Your task to perform on an android device: What is the capital of Norway? Image 0: 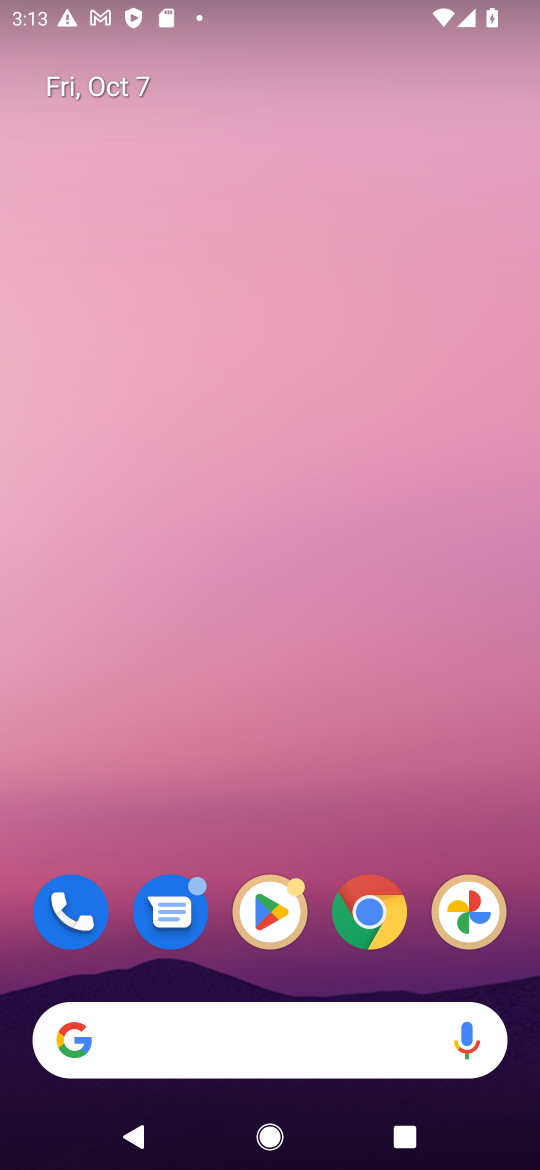
Step 0: drag from (216, 825) to (248, 229)
Your task to perform on an android device: What is the capital of Norway? Image 1: 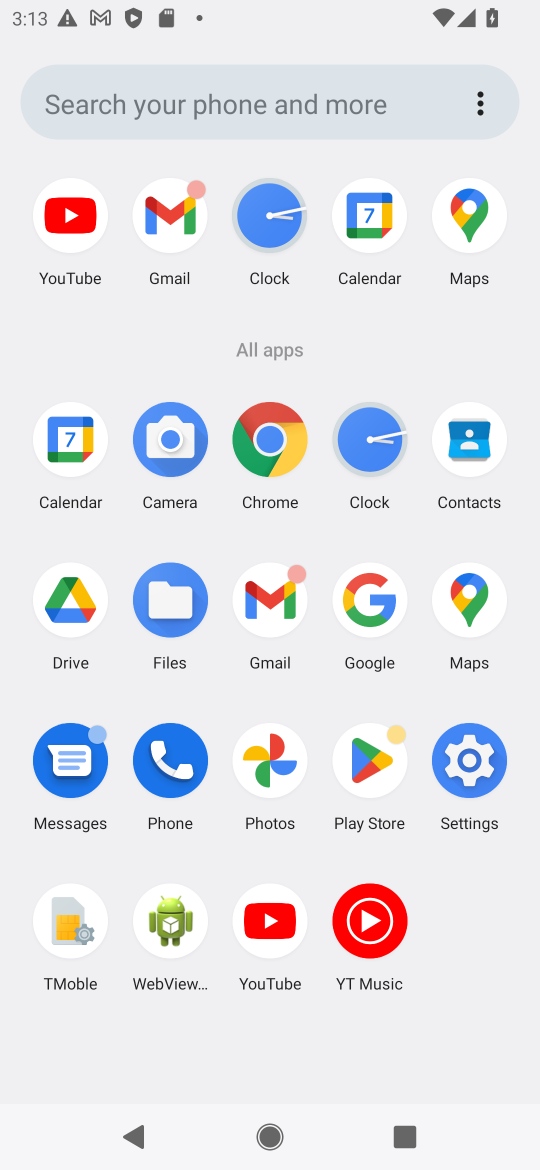
Step 1: click (359, 590)
Your task to perform on an android device: What is the capital of Norway? Image 2: 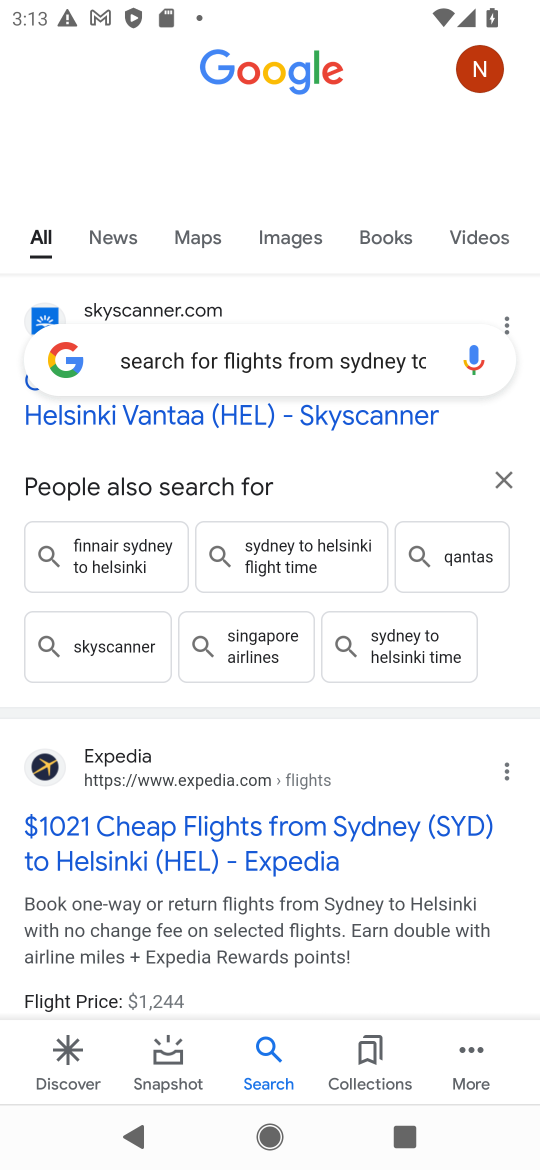
Step 2: click (406, 354)
Your task to perform on an android device: What is the capital of Norway? Image 3: 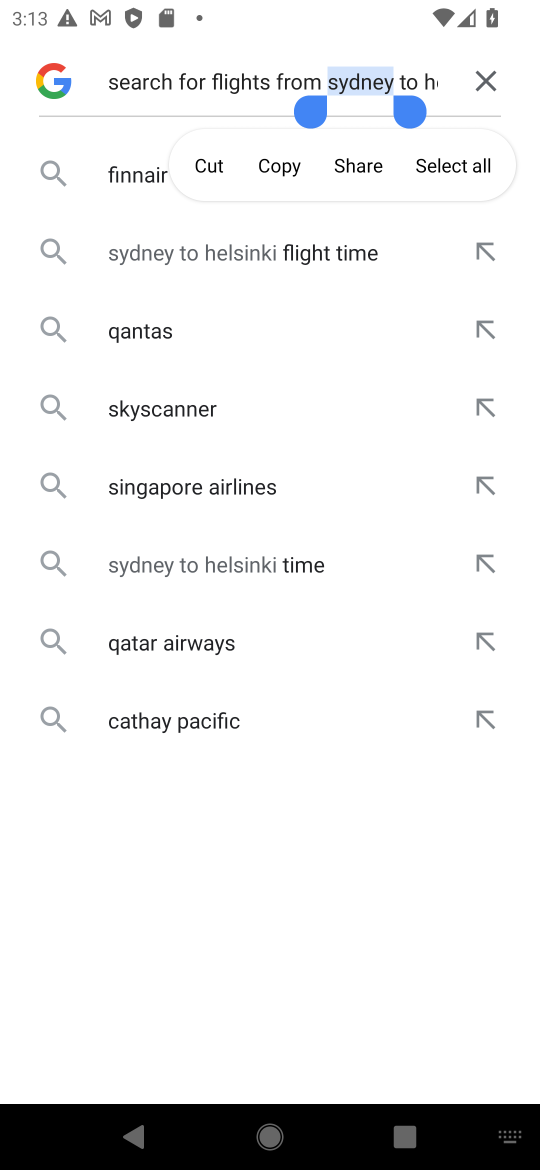
Step 3: click (469, 79)
Your task to perform on an android device: What is the capital of Norway? Image 4: 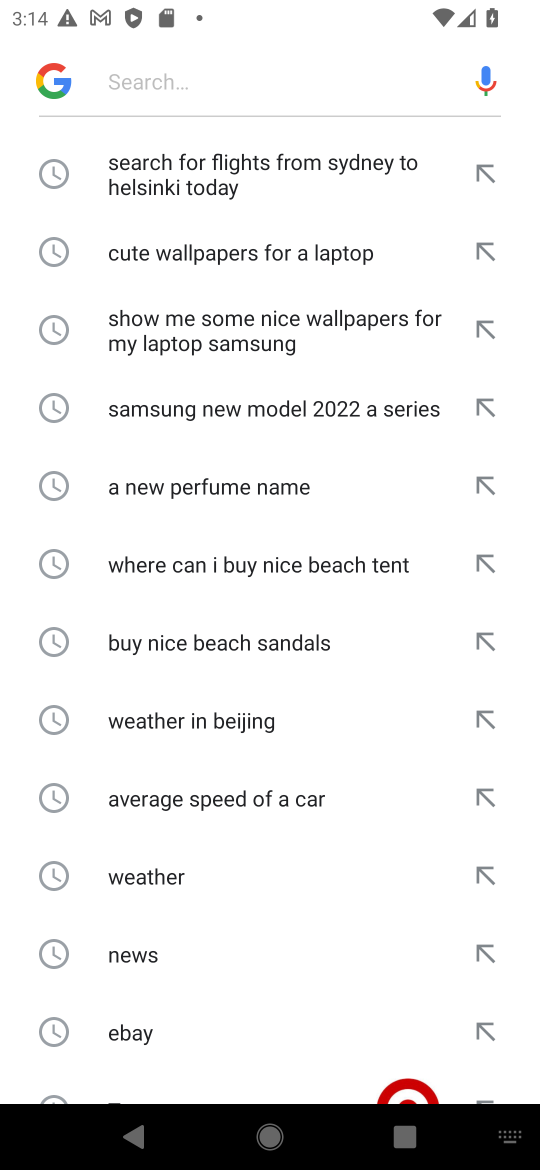
Step 4: click (227, 76)
Your task to perform on an android device: What is the capital of Norway? Image 5: 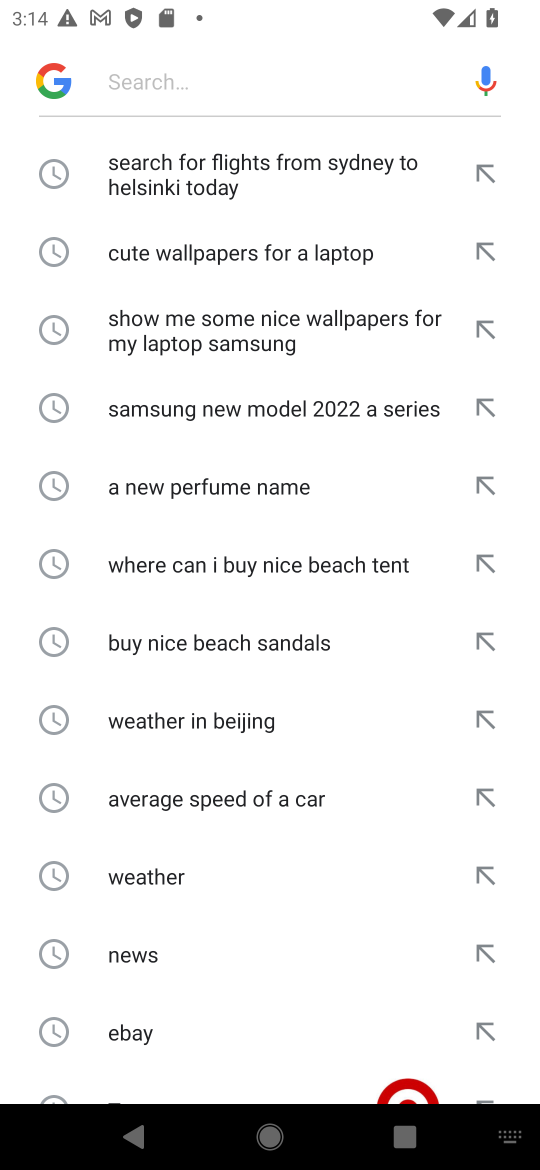
Step 5: type "What is the capital of Norway? "
Your task to perform on an android device: What is the capital of Norway? Image 6: 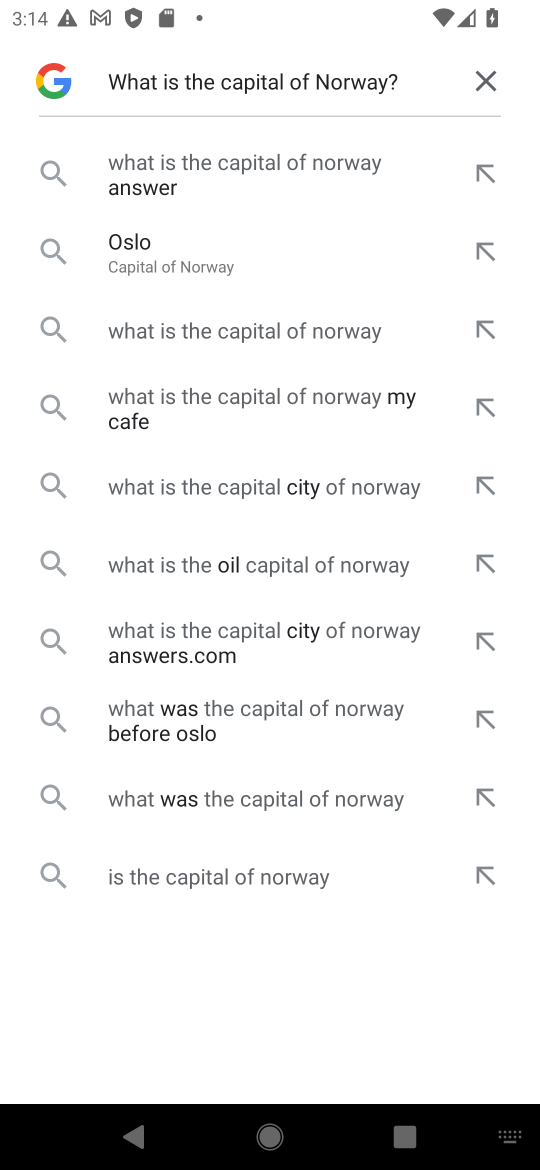
Step 6: click (249, 325)
Your task to perform on an android device: What is the capital of Norway? Image 7: 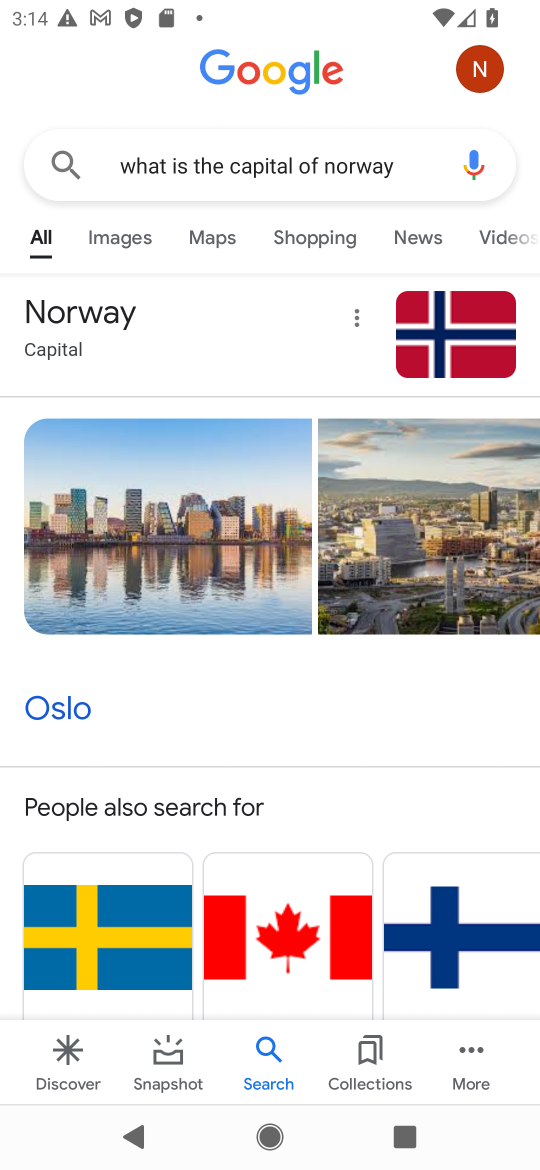
Step 7: drag from (267, 856) to (290, 276)
Your task to perform on an android device: What is the capital of Norway? Image 8: 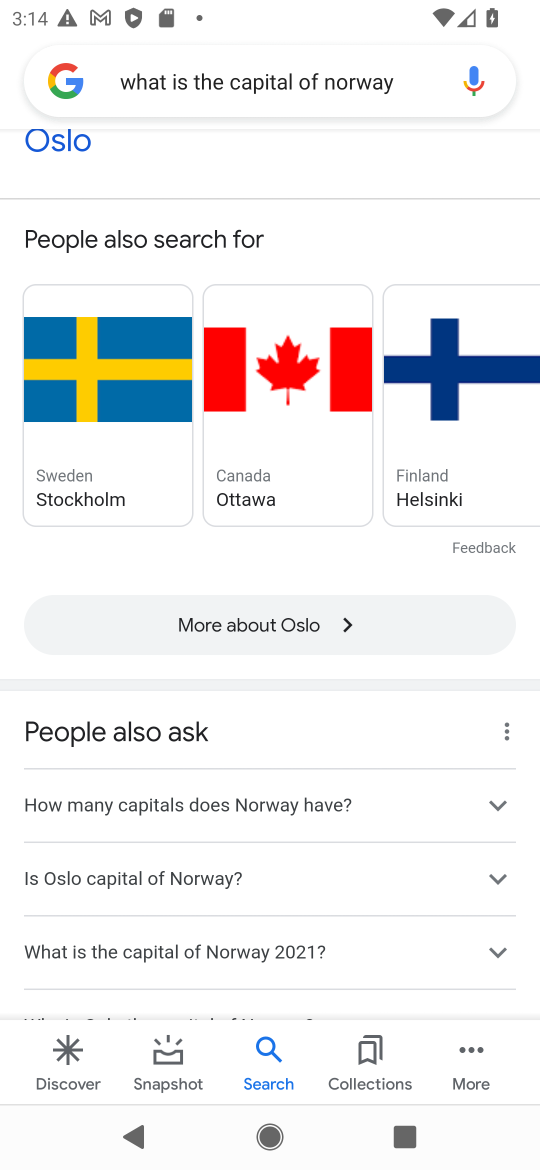
Step 8: click (233, 877)
Your task to perform on an android device: What is the capital of Norway? Image 9: 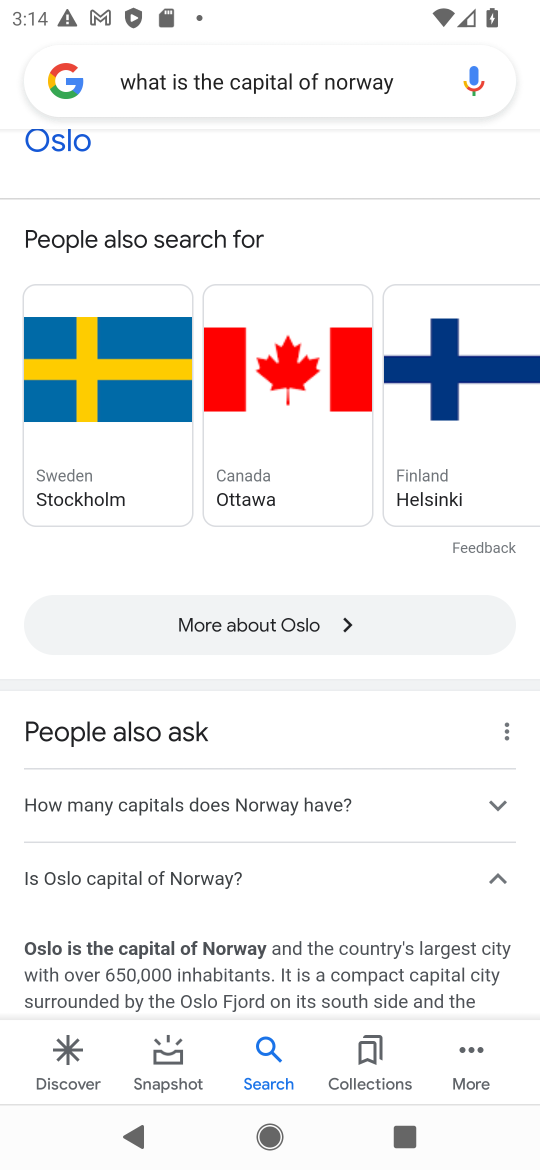
Step 9: task complete